Your task to perform on an android device: change the clock display to analog Image 0: 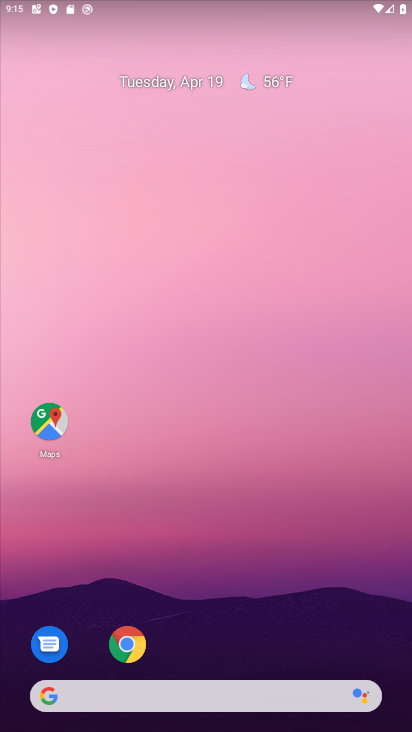
Step 0: drag from (196, 645) to (213, 165)
Your task to perform on an android device: change the clock display to analog Image 1: 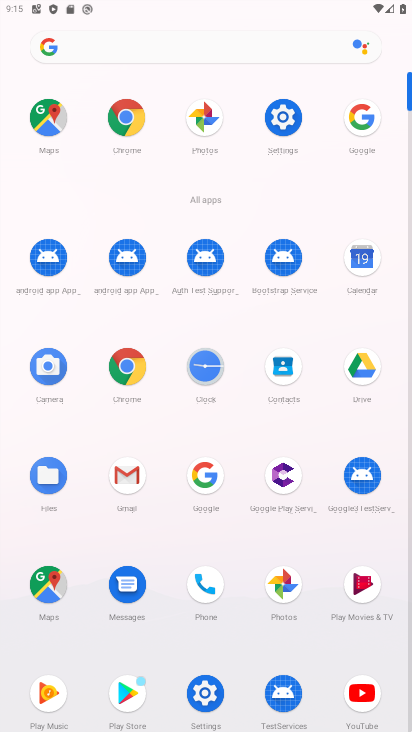
Step 1: click (207, 366)
Your task to perform on an android device: change the clock display to analog Image 2: 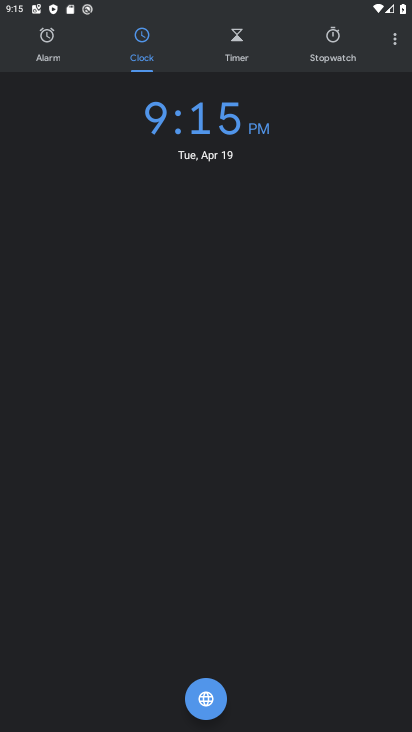
Step 2: click (392, 34)
Your task to perform on an android device: change the clock display to analog Image 3: 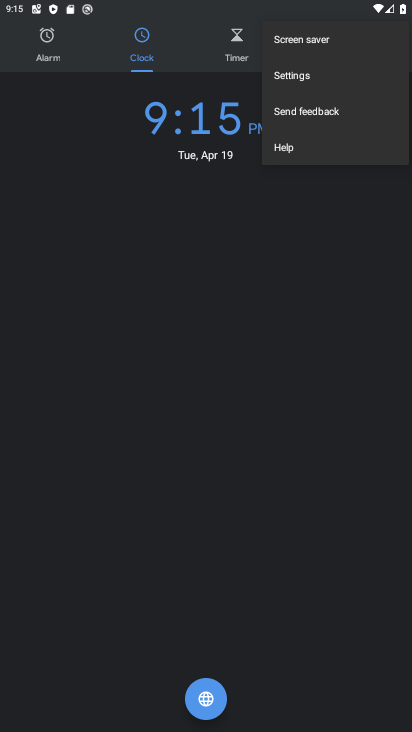
Step 3: click (294, 80)
Your task to perform on an android device: change the clock display to analog Image 4: 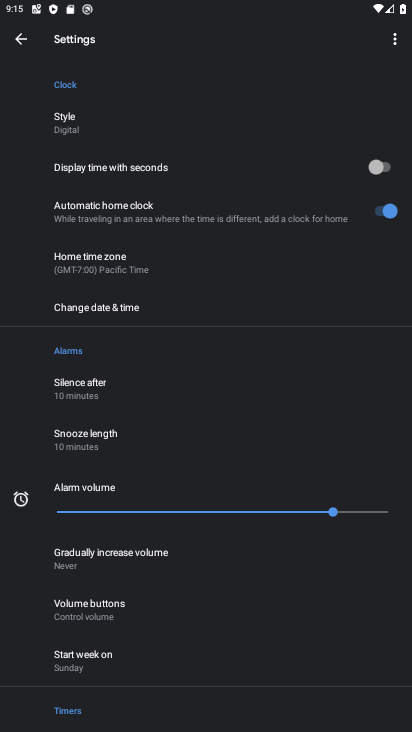
Step 4: click (85, 133)
Your task to perform on an android device: change the clock display to analog Image 5: 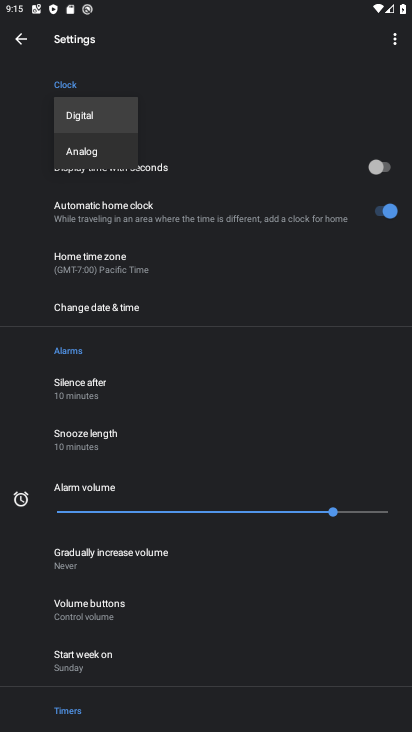
Step 5: click (92, 152)
Your task to perform on an android device: change the clock display to analog Image 6: 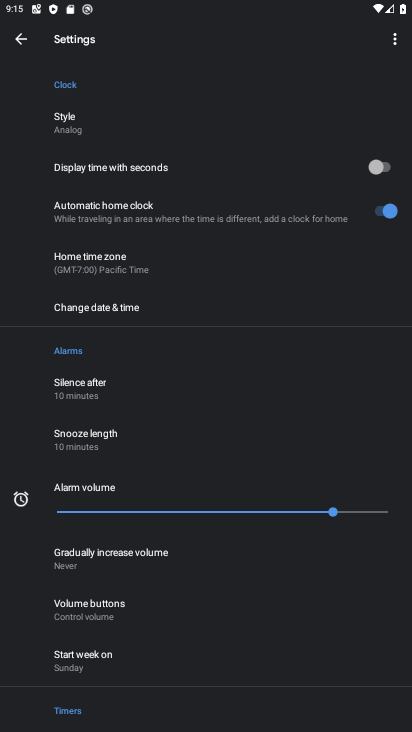
Step 6: task complete